Your task to perform on an android device: Is it going to rain this weekend? Image 0: 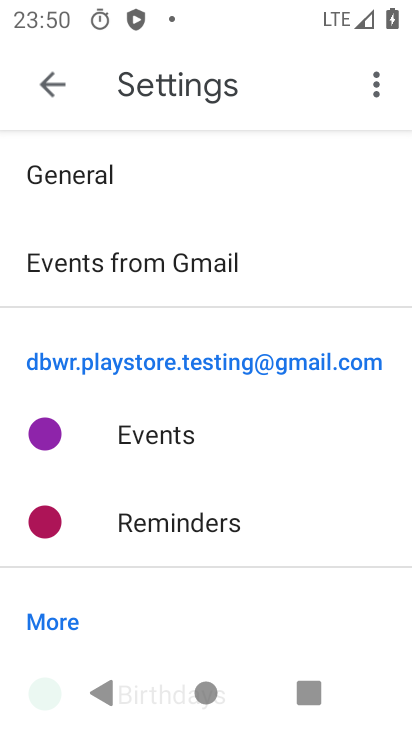
Step 0: press home button
Your task to perform on an android device: Is it going to rain this weekend? Image 1: 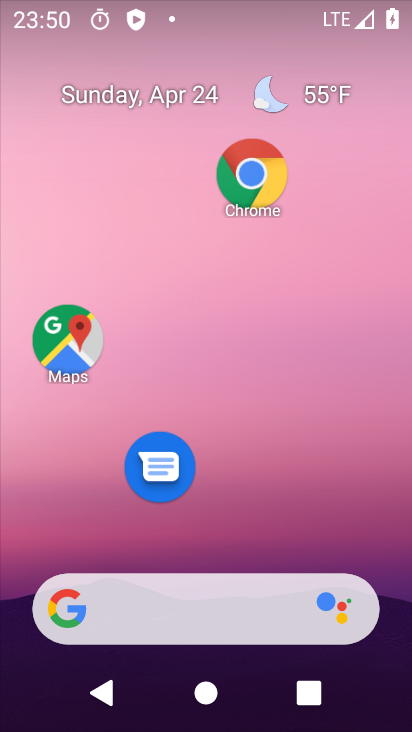
Step 1: drag from (274, 508) to (272, 23)
Your task to perform on an android device: Is it going to rain this weekend? Image 2: 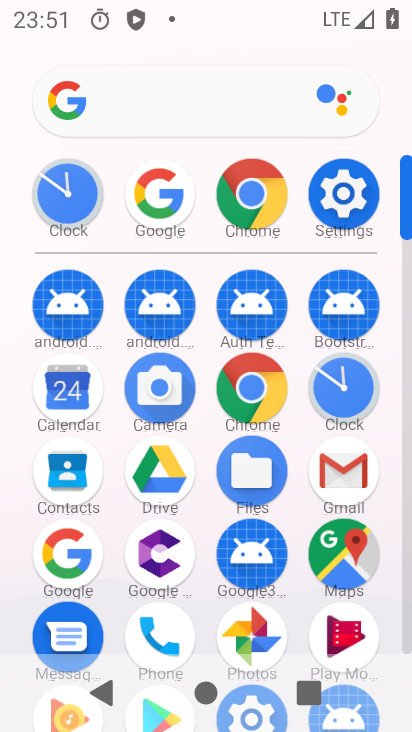
Step 2: click (157, 196)
Your task to perform on an android device: Is it going to rain this weekend? Image 3: 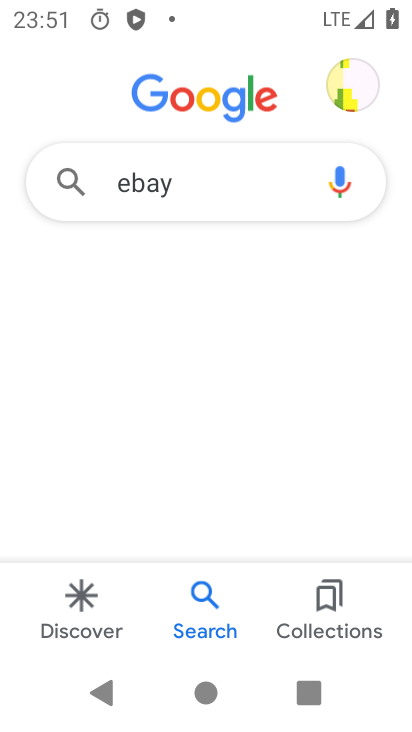
Step 3: click (209, 180)
Your task to perform on an android device: Is it going to rain this weekend? Image 4: 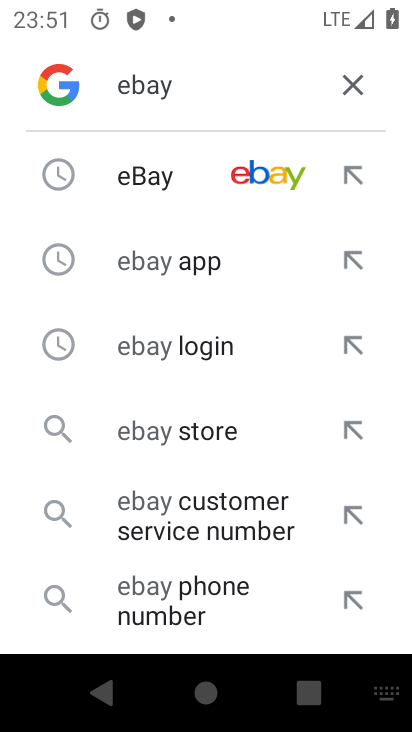
Step 4: click (346, 98)
Your task to perform on an android device: Is it going to rain this weekend? Image 5: 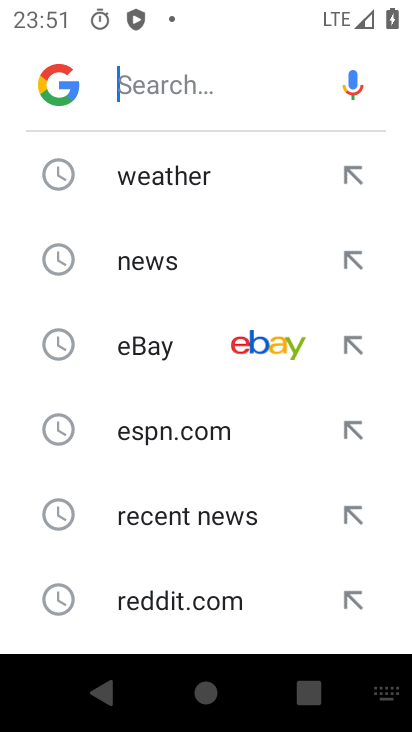
Step 5: type "is it going to rain this weekend"
Your task to perform on an android device: Is it going to rain this weekend? Image 6: 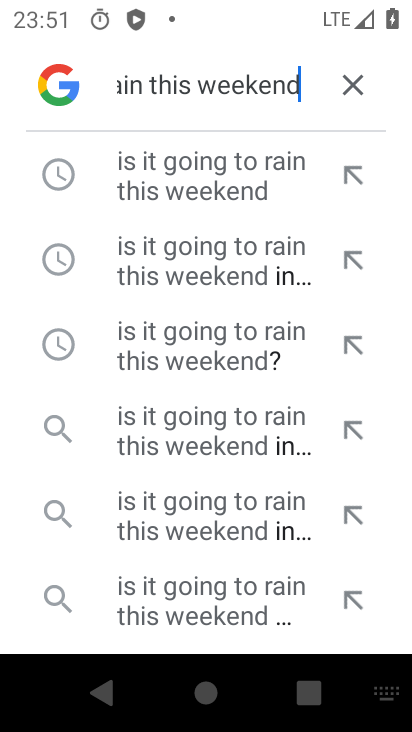
Step 6: click (262, 165)
Your task to perform on an android device: Is it going to rain this weekend? Image 7: 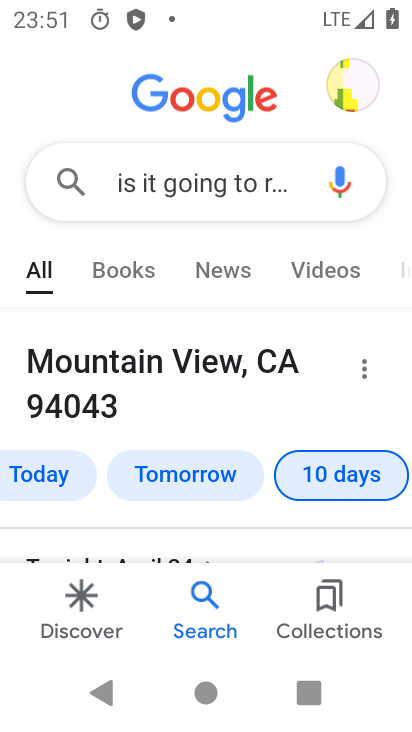
Step 7: task complete